Your task to perform on an android device: allow notifications from all sites in the chrome app Image 0: 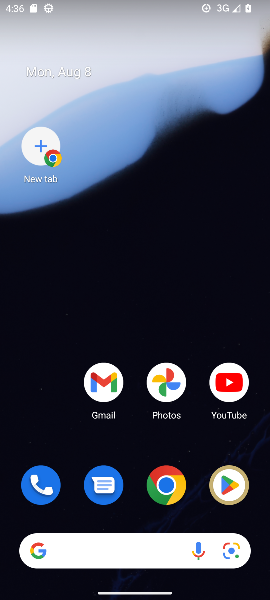
Step 0: drag from (213, 529) to (131, 18)
Your task to perform on an android device: allow notifications from all sites in the chrome app Image 1: 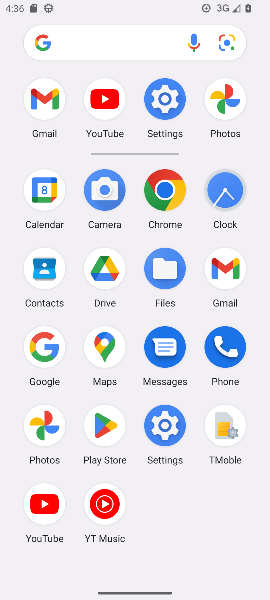
Step 1: click (161, 198)
Your task to perform on an android device: allow notifications from all sites in the chrome app Image 2: 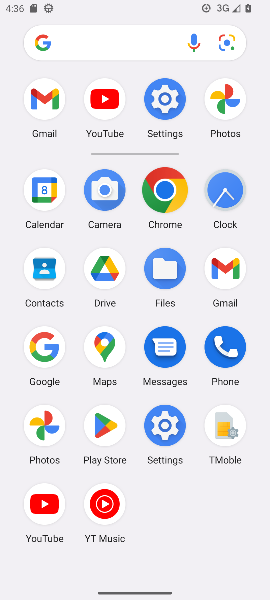
Step 2: click (162, 198)
Your task to perform on an android device: allow notifications from all sites in the chrome app Image 3: 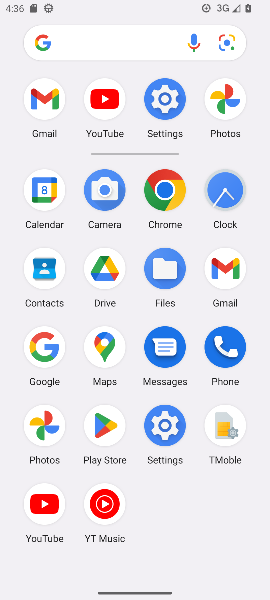
Step 3: click (164, 198)
Your task to perform on an android device: allow notifications from all sites in the chrome app Image 4: 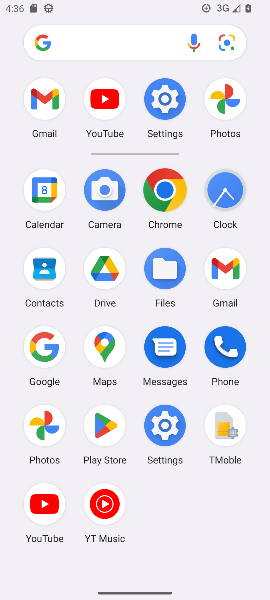
Step 4: click (164, 198)
Your task to perform on an android device: allow notifications from all sites in the chrome app Image 5: 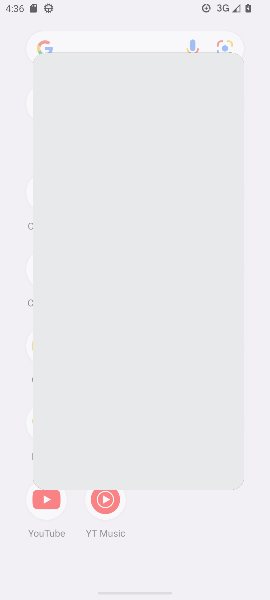
Step 5: click (164, 198)
Your task to perform on an android device: allow notifications from all sites in the chrome app Image 6: 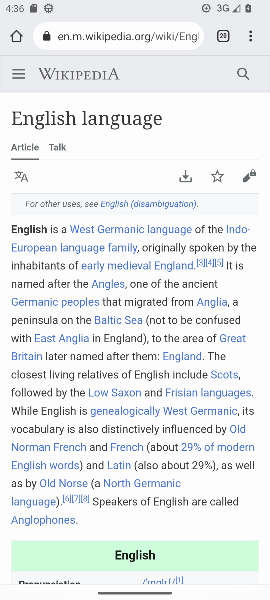
Step 6: click (164, 198)
Your task to perform on an android device: allow notifications from all sites in the chrome app Image 7: 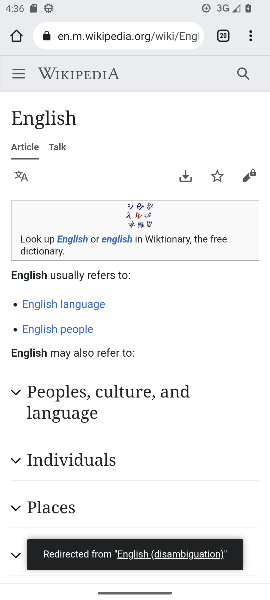
Step 7: drag from (253, 33) to (142, 456)
Your task to perform on an android device: allow notifications from all sites in the chrome app Image 8: 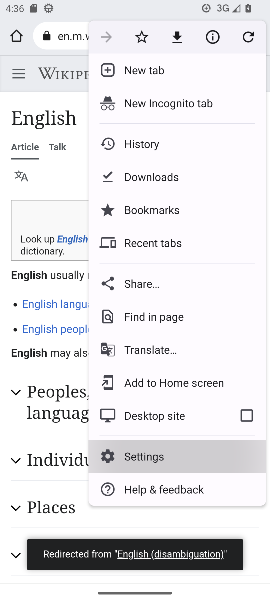
Step 8: click (145, 457)
Your task to perform on an android device: allow notifications from all sites in the chrome app Image 9: 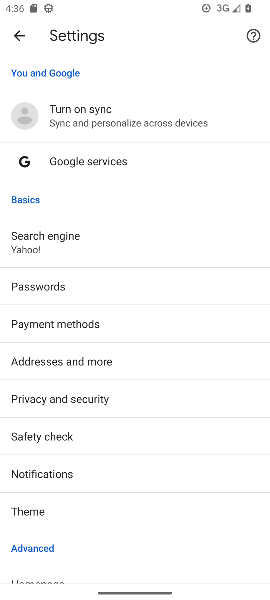
Step 9: drag from (69, 439) to (86, 50)
Your task to perform on an android device: allow notifications from all sites in the chrome app Image 10: 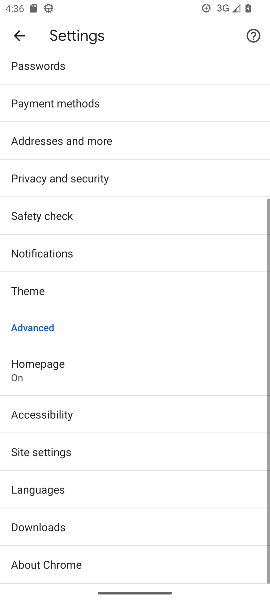
Step 10: drag from (113, 417) to (93, 300)
Your task to perform on an android device: allow notifications from all sites in the chrome app Image 11: 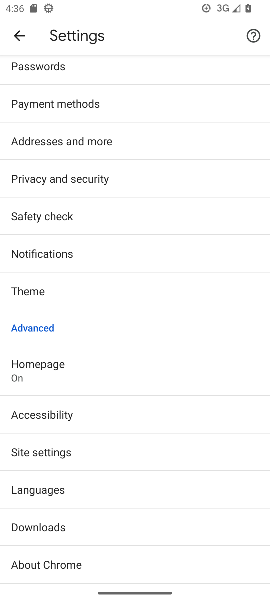
Step 11: drag from (42, 193) to (78, 427)
Your task to perform on an android device: allow notifications from all sites in the chrome app Image 12: 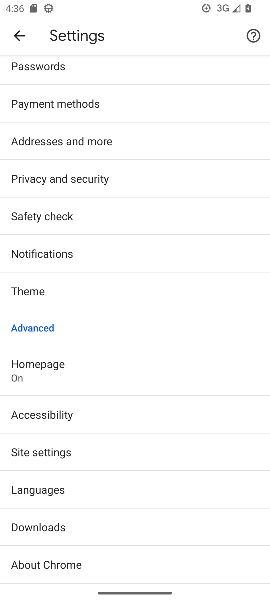
Step 12: drag from (47, 103) to (47, 386)
Your task to perform on an android device: allow notifications from all sites in the chrome app Image 13: 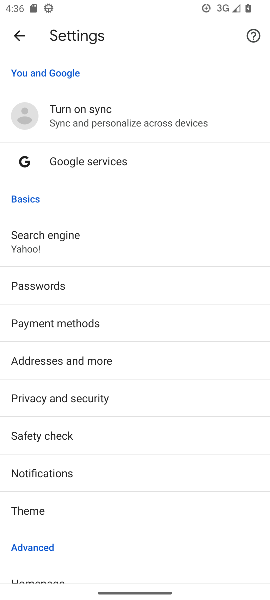
Step 13: click (44, 467)
Your task to perform on an android device: allow notifications from all sites in the chrome app Image 14: 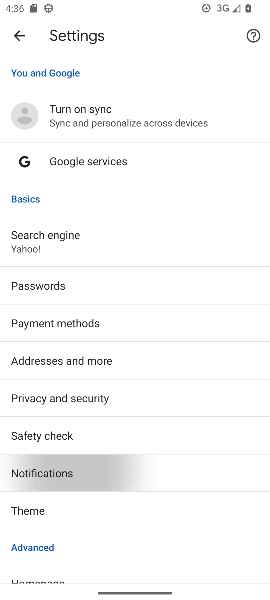
Step 14: click (48, 471)
Your task to perform on an android device: allow notifications from all sites in the chrome app Image 15: 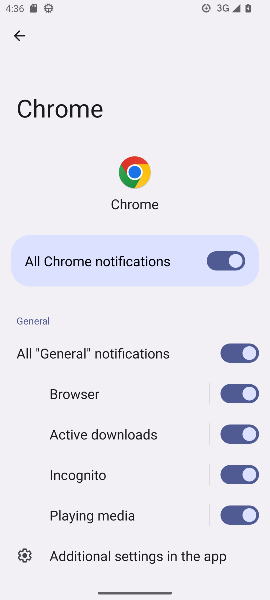
Step 15: click (240, 264)
Your task to perform on an android device: allow notifications from all sites in the chrome app Image 16: 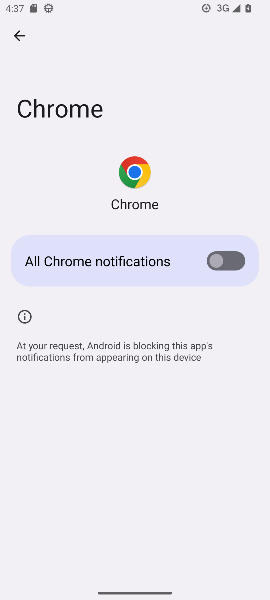
Step 16: click (214, 256)
Your task to perform on an android device: allow notifications from all sites in the chrome app Image 17: 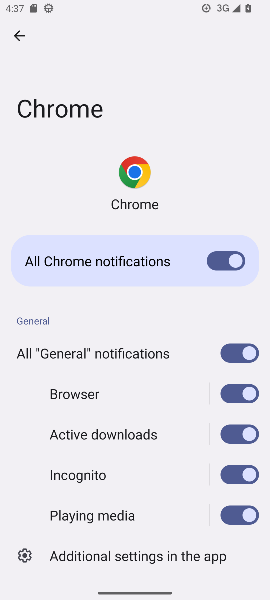
Step 17: task complete